Your task to perform on an android device: turn on notifications settings in the gmail app Image 0: 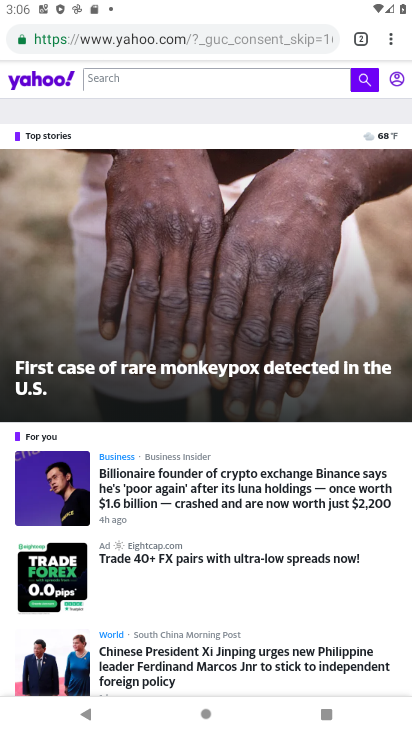
Step 0: press home button
Your task to perform on an android device: turn on notifications settings in the gmail app Image 1: 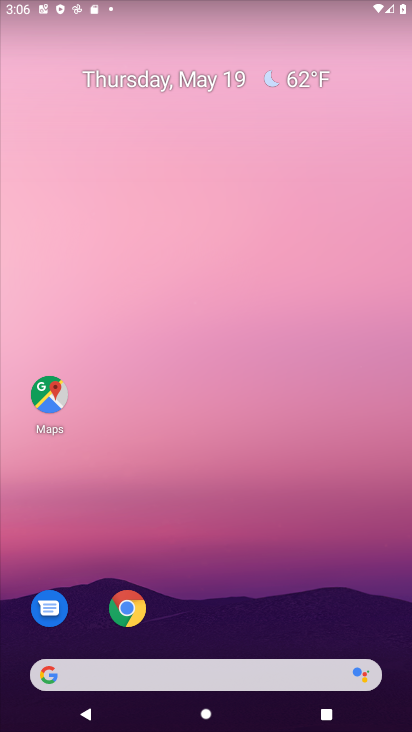
Step 1: drag from (245, 614) to (260, 122)
Your task to perform on an android device: turn on notifications settings in the gmail app Image 2: 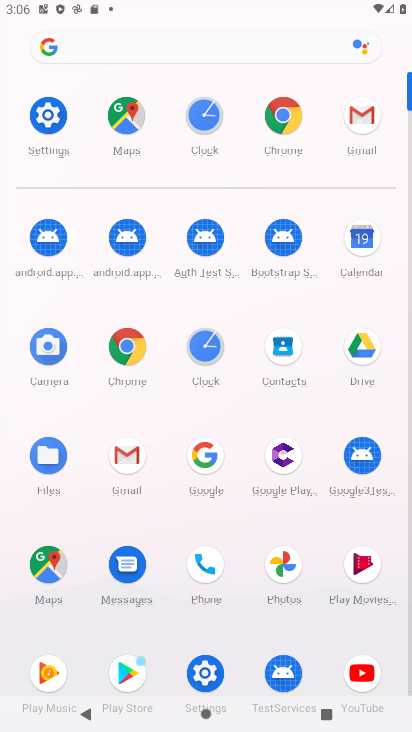
Step 2: click (291, 137)
Your task to perform on an android device: turn on notifications settings in the gmail app Image 3: 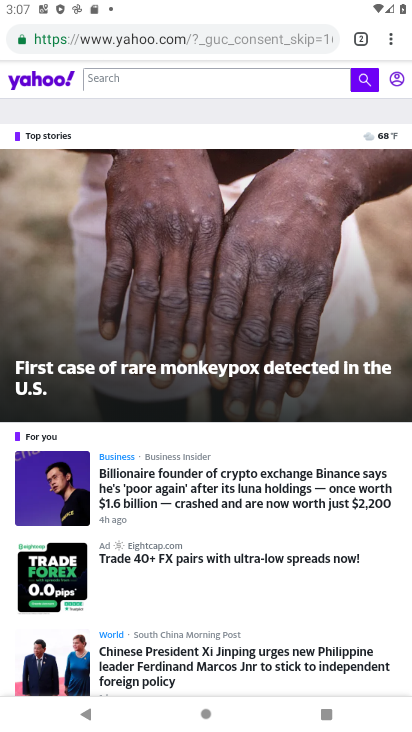
Step 3: press home button
Your task to perform on an android device: turn on notifications settings in the gmail app Image 4: 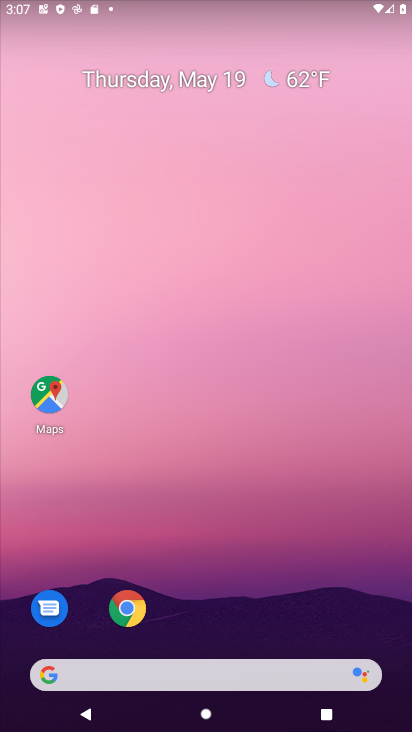
Step 4: drag from (307, 593) to (165, 2)
Your task to perform on an android device: turn on notifications settings in the gmail app Image 5: 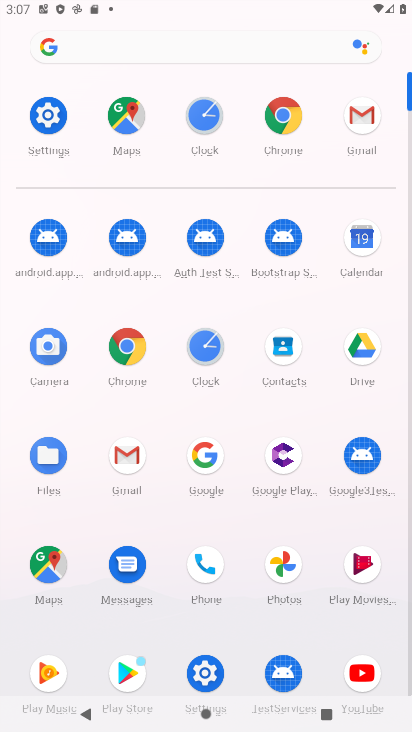
Step 5: click (364, 149)
Your task to perform on an android device: turn on notifications settings in the gmail app Image 6: 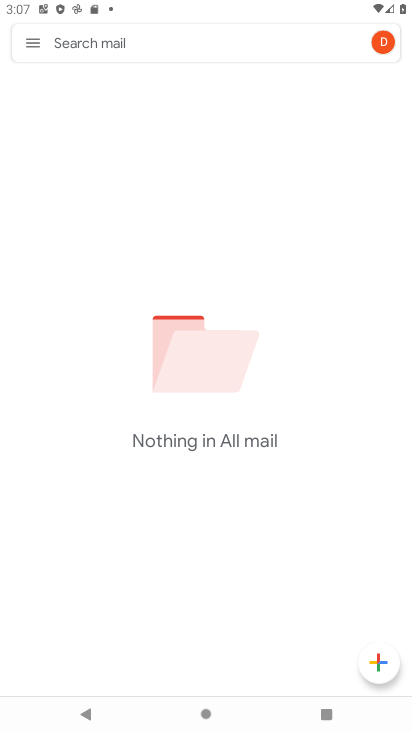
Step 6: click (20, 46)
Your task to perform on an android device: turn on notifications settings in the gmail app Image 7: 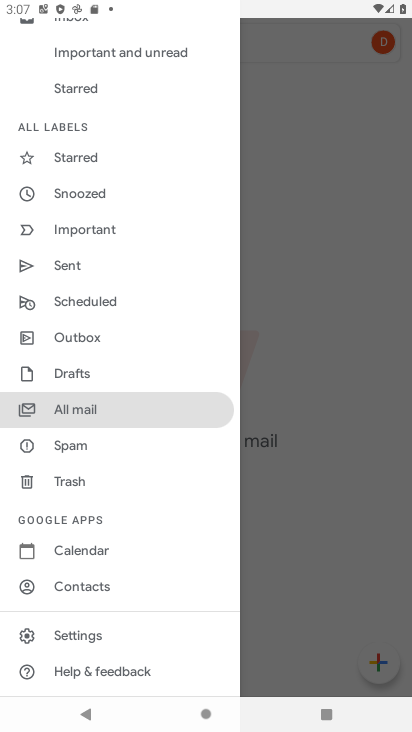
Step 7: click (148, 645)
Your task to perform on an android device: turn on notifications settings in the gmail app Image 8: 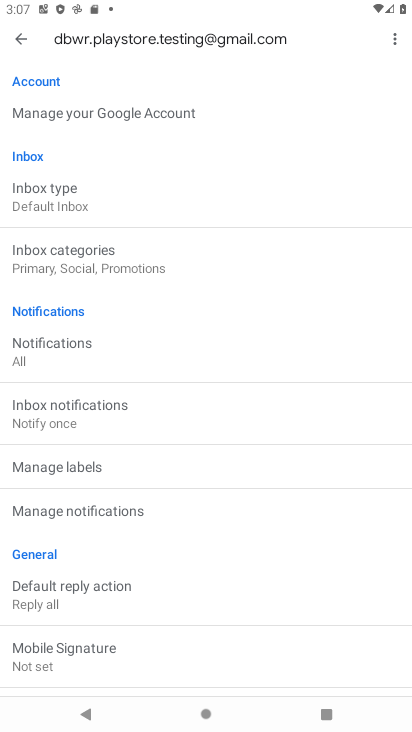
Step 8: click (114, 509)
Your task to perform on an android device: turn on notifications settings in the gmail app Image 9: 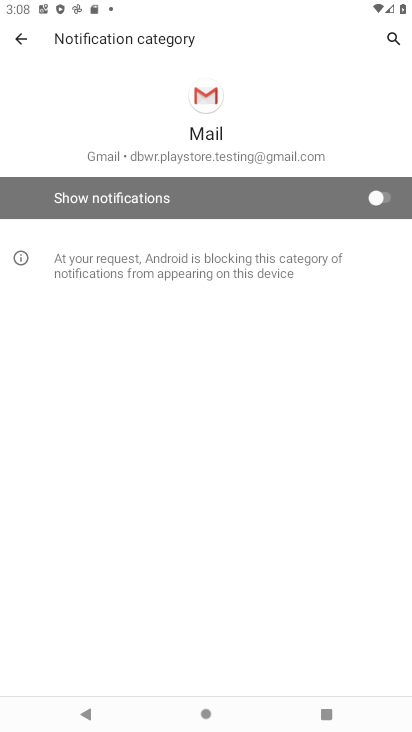
Step 9: click (344, 176)
Your task to perform on an android device: turn on notifications settings in the gmail app Image 10: 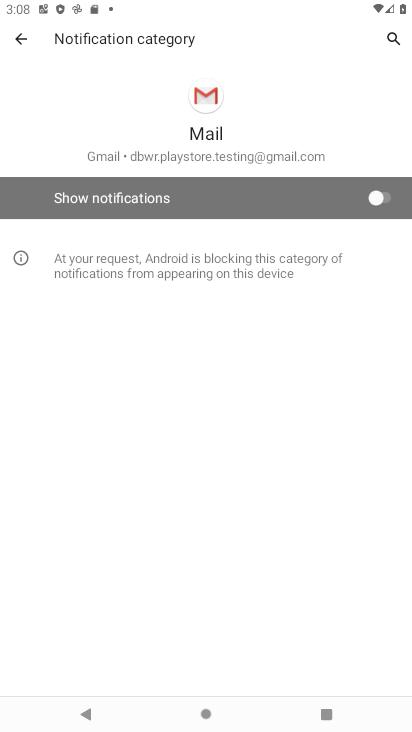
Step 10: click (377, 194)
Your task to perform on an android device: turn on notifications settings in the gmail app Image 11: 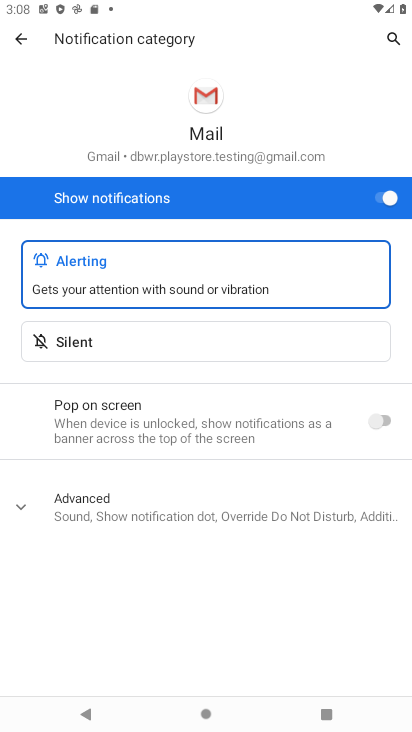
Step 11: task complete